Your task to perform on an android device: toggle notification dots Image 0: 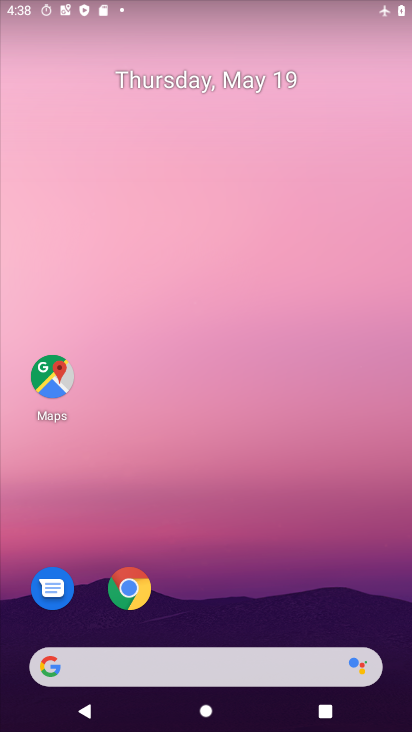
Step 0: drag from (213, 639) to (265, 124)
Your task to perform on an android device: toggle notification dots Image 1: 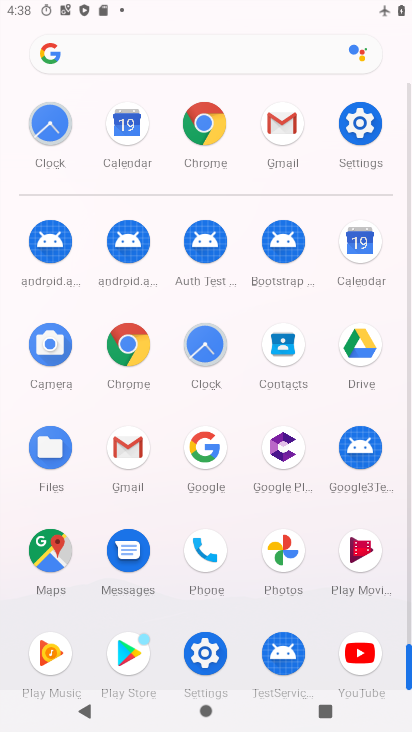
Step 1: click (363, 119)
Your task to perform on an android device: toggle notification dots Image 2: 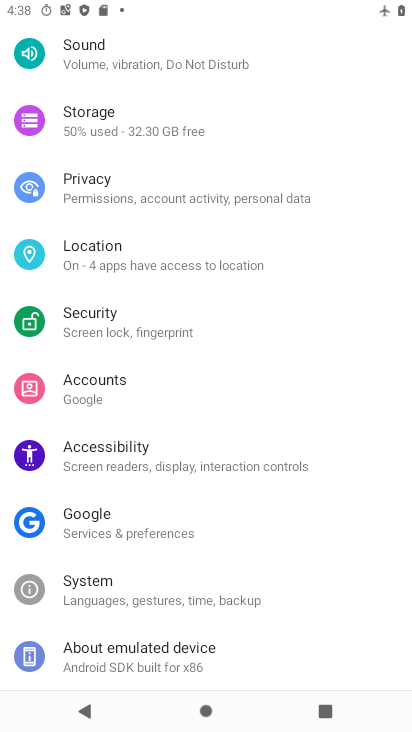
Step 2: drag from (174, 360) to (195, 588)
Your task to perform on an android device: toggle notification dots Image 3: 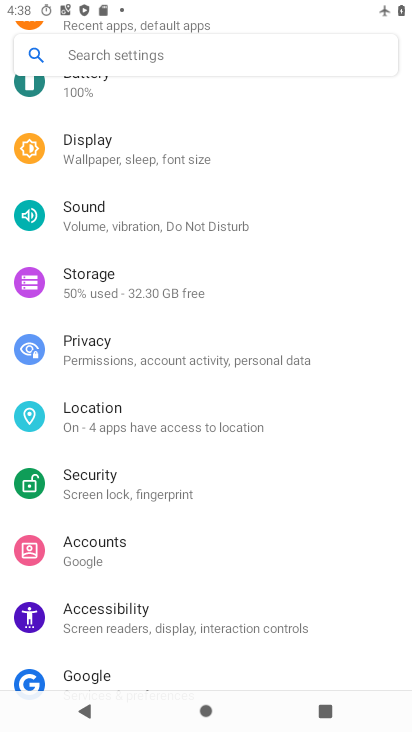
Step 3: drag from (181, 218) to (202, 667)
Your task to perform on an android device: toggle notification dots Image 4: 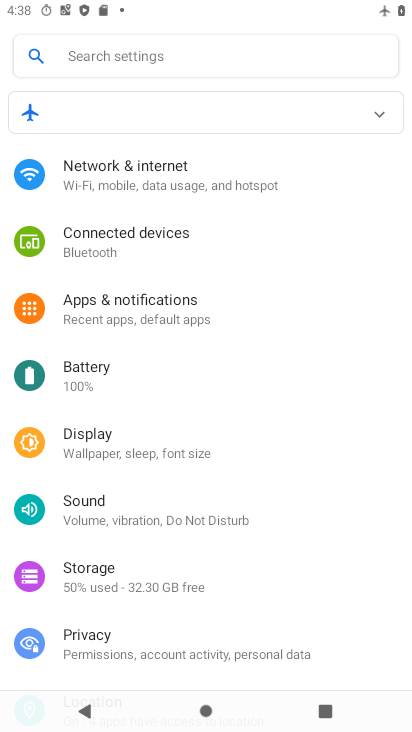
Step 4: click (149, 302)
Your task to perform on an android device: toggle notification dots Image 5: 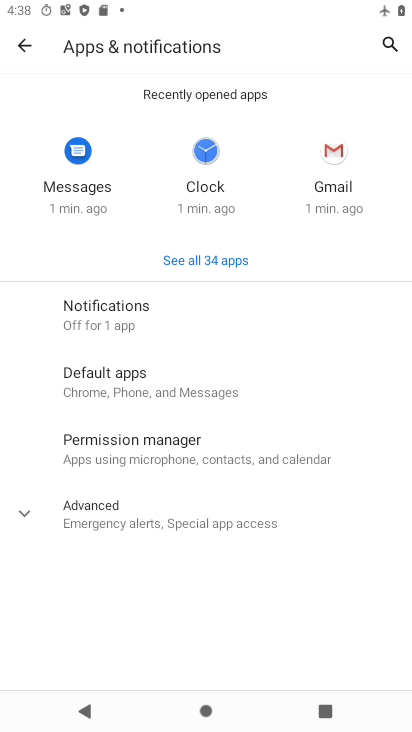
Step 5: click (134, 522)
Your task to perform on an android device: toggle notification dots Image 6: 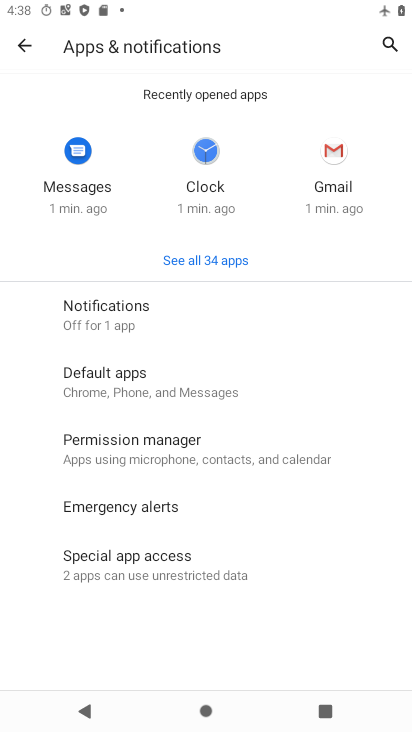
Step 6: click (131, 320)
Your task to perform on an android device: toggle notification dots Image 7: 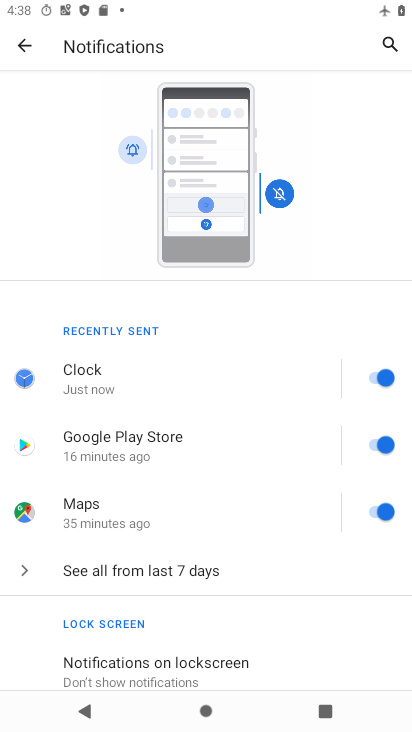
Step 7: drag from (164, 589) to (173, 299)
Your task to perform on an android device: toggle notification dots Image 8: 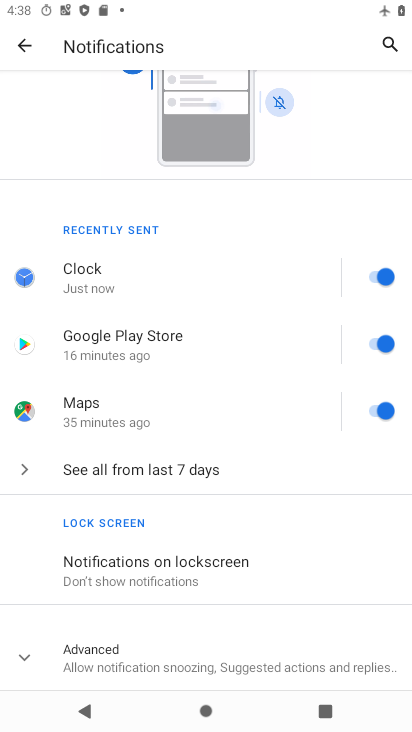
Step 8: click (138, 660)
Your task to perform on an android device: toggle notification dots Image 9: 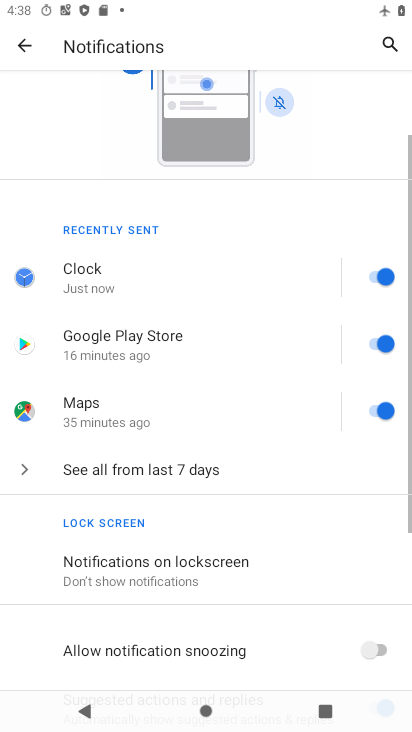
Step 9: drag from (138, 654) to (193, 271)
Your task to perform on an android device: toggle notification dots Image 10: 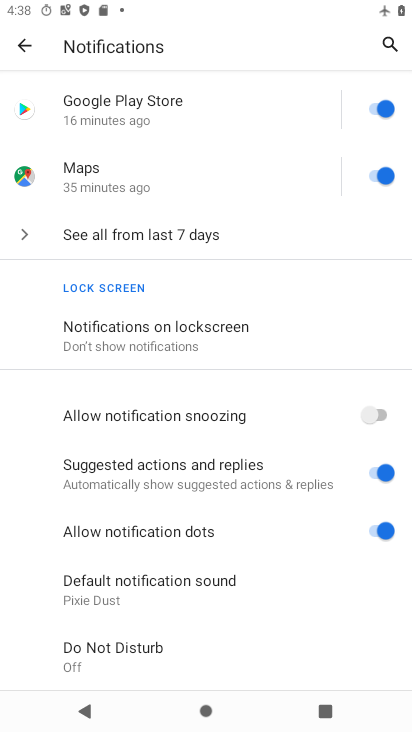
Step 10: click (366, 532)
Your task to perform on an android device: toggle notification dots Image 11: 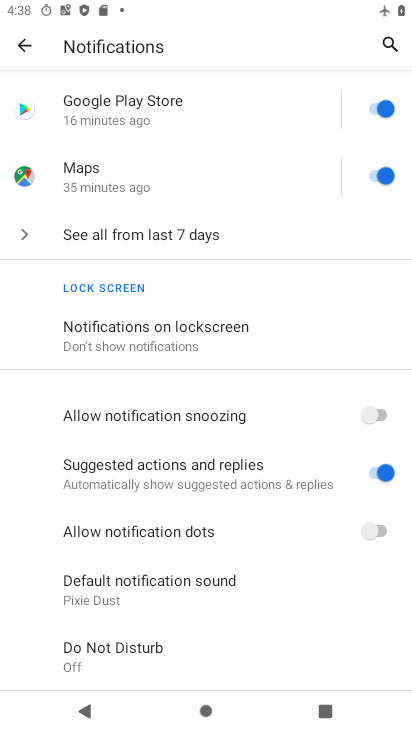
Step 11: task complete